Your task to perform on an android device: Go to CNN.com Image 0: 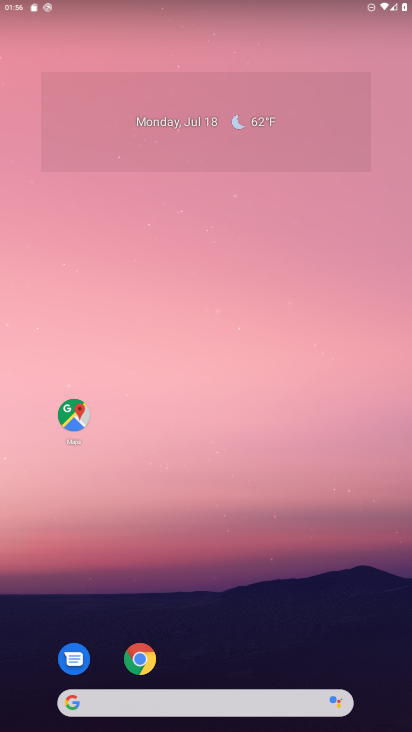
Step 0: drag from (293, 618) to (251, 117)
Your task to perform on an android device: Go to CNN.com Image 1: 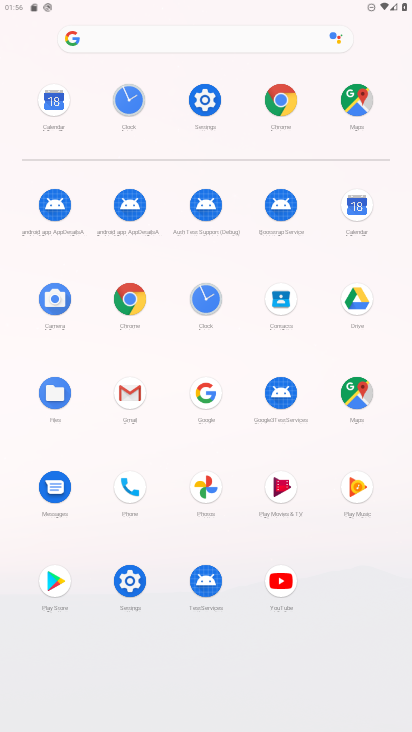
Step 1: click (283, 93)
Your task to perform on an android device: Go to CNN.com Image 2: 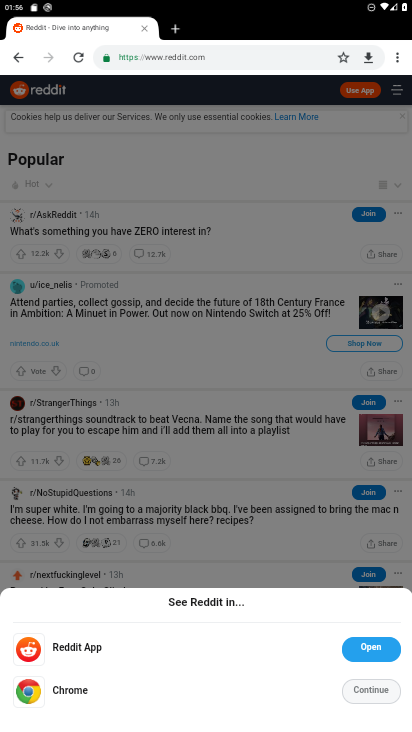
Step 2: click (164, 55)
Your task to perform on an android device: Go to CNN.com Image 3: 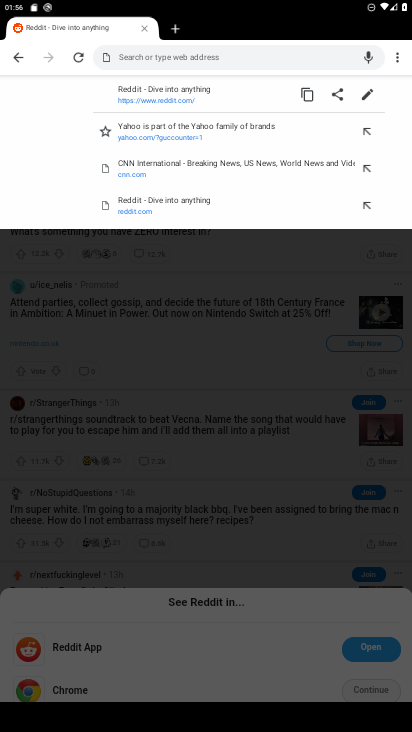
Step 3: type "cnn.com"
Your task to perform on an android device: Go to CNN.com Image 4: 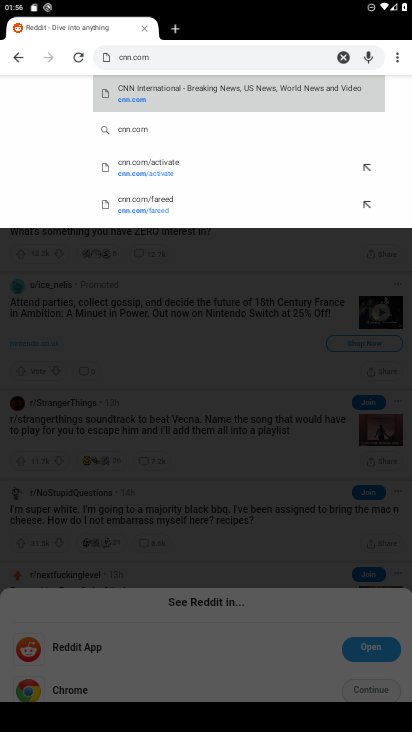
Step 4: click (191, 89)
Your task to perform on an android device: Go to CNN.com Image 5: 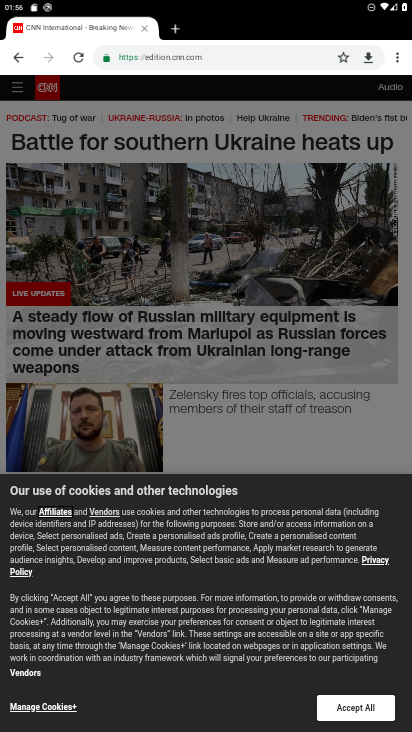
Step 5: task complete